Your task to perform on an android device: set the timer Image 0: 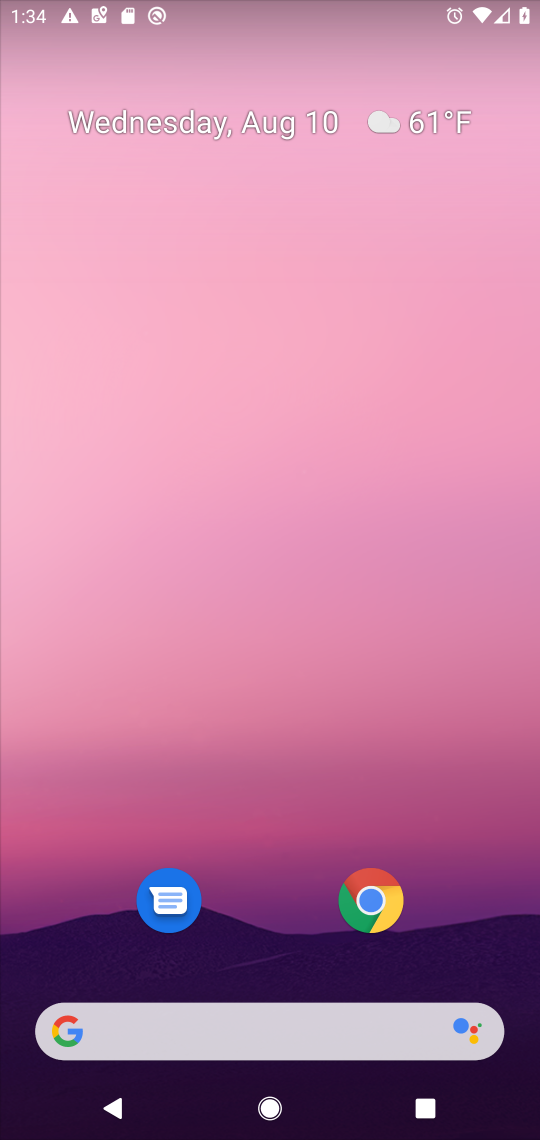
Step 0: drag from (270, 883) to (405, 18)
Your task to perform on an android device: set the timer Image 1: 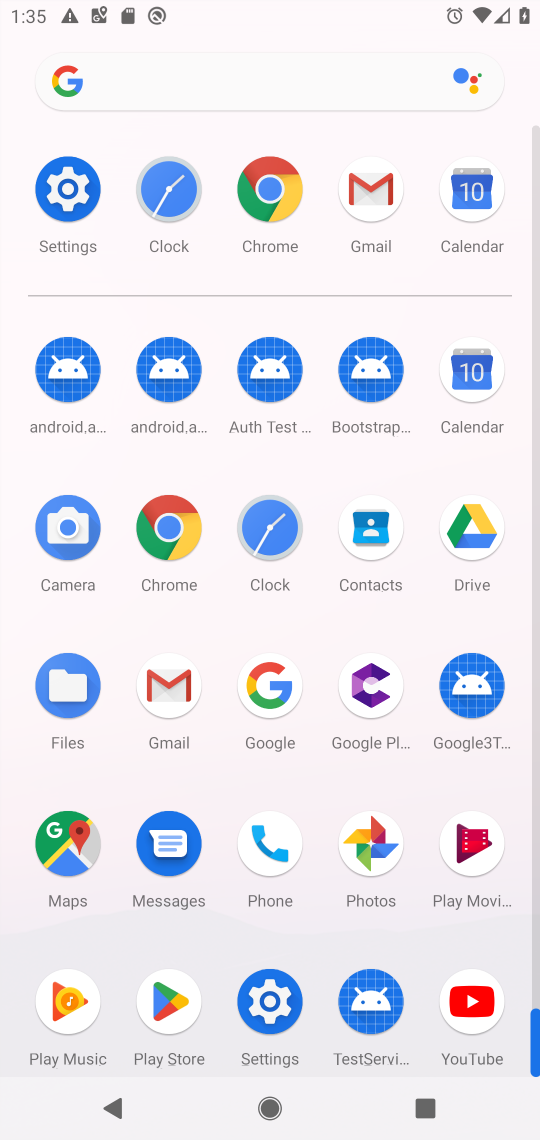
Step 1: click (172, 185)
Your task to perform on an android device: set the timer Image 2: 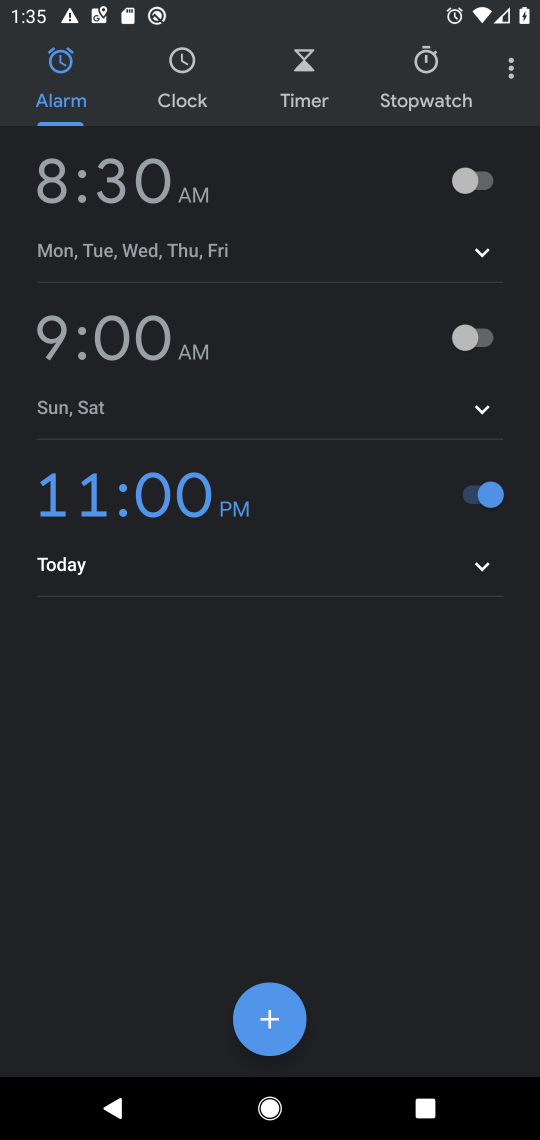
Step 2: click (301, 66)
Your task to perform on an android device: set the timer Image 3: 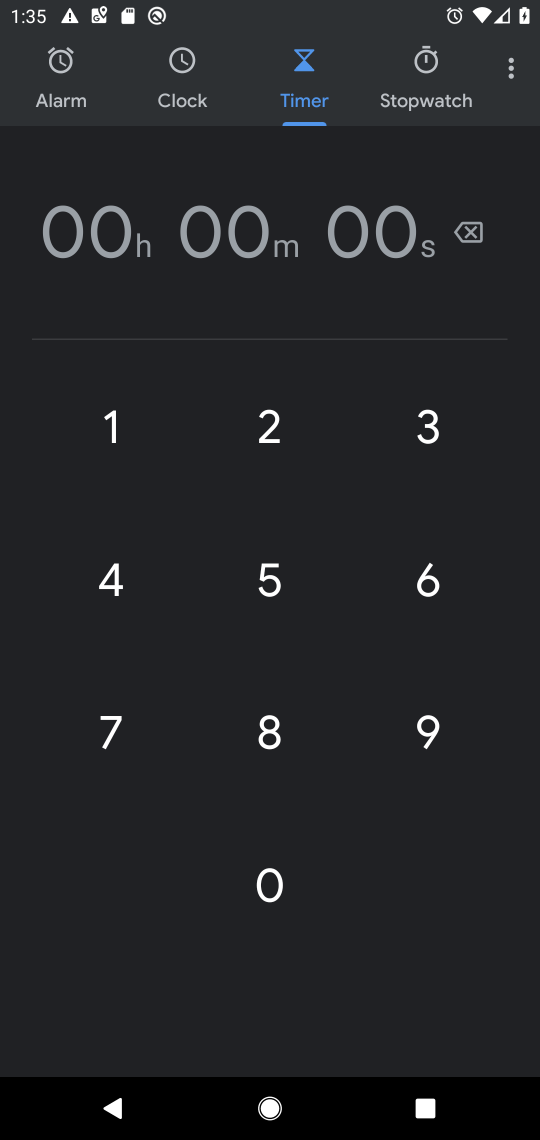
Step 3: task complete